Your task to perform on an android device: Set the phone to "Do not disturb". Image 0: 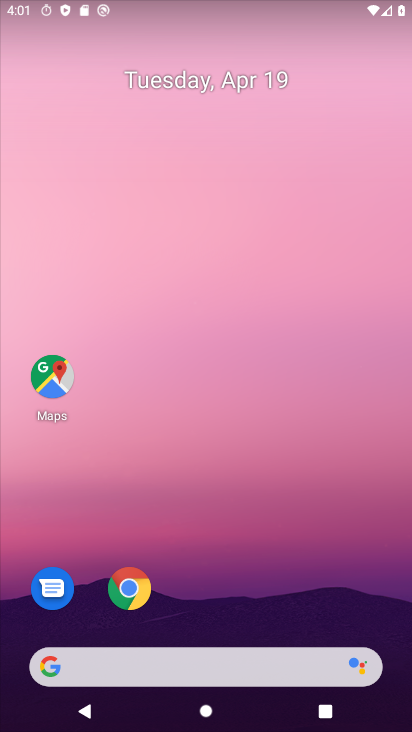
Step 0: drag from (215, 537) to (240, 78)
Your task to perform on an android device: Set the phone to "Do not disturb". Image 1: 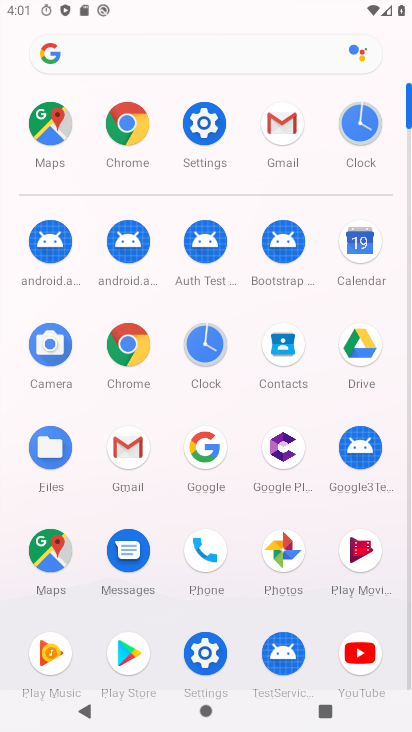
Step 1: click (204, 118)
Your task to perform on an android device: Set the phone to "Do not disturb". Image 2: 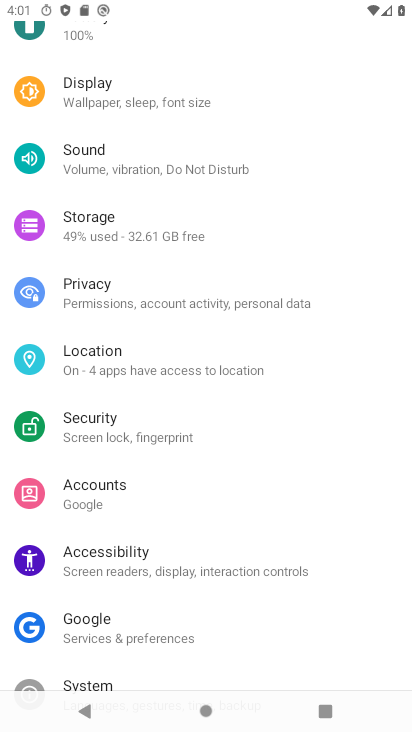
Step 2: click (113, 162)
Your task to perform on an android device: Set the phone to "Do not disturb". Image 3: 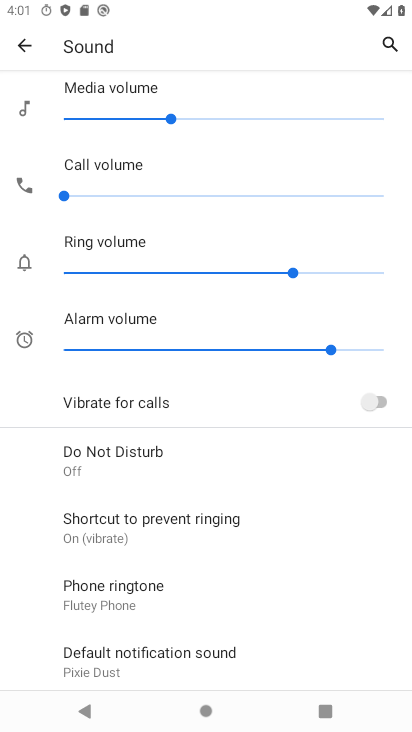
Step 3: click (141, 465)
Your task to perform on an android device: Set the phone to "Do not disturb". Image 4: 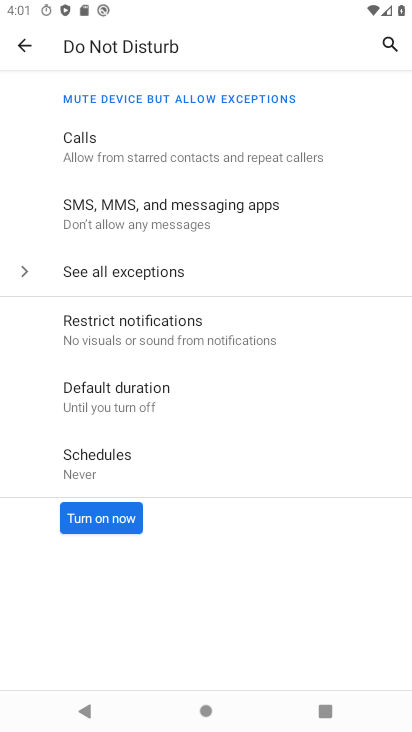
Step 4: click (104, 518)
Your task to perform on an android device: Set the phone to "Do not disturb". Image 5: 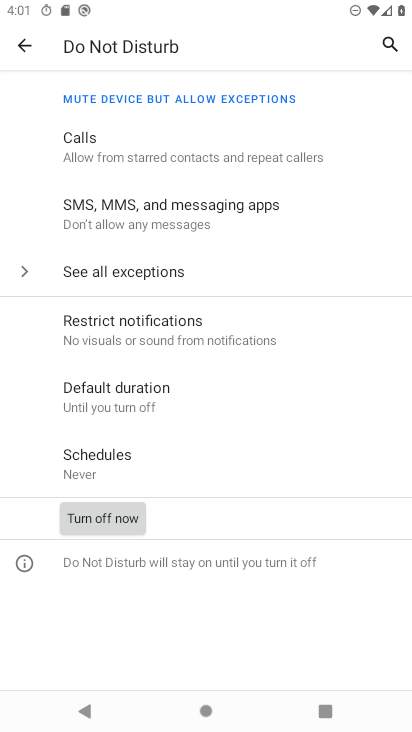
Step 5: task complete